Your task to perform on an android device: Open Google Maps and go to "Timeline" Image 0: 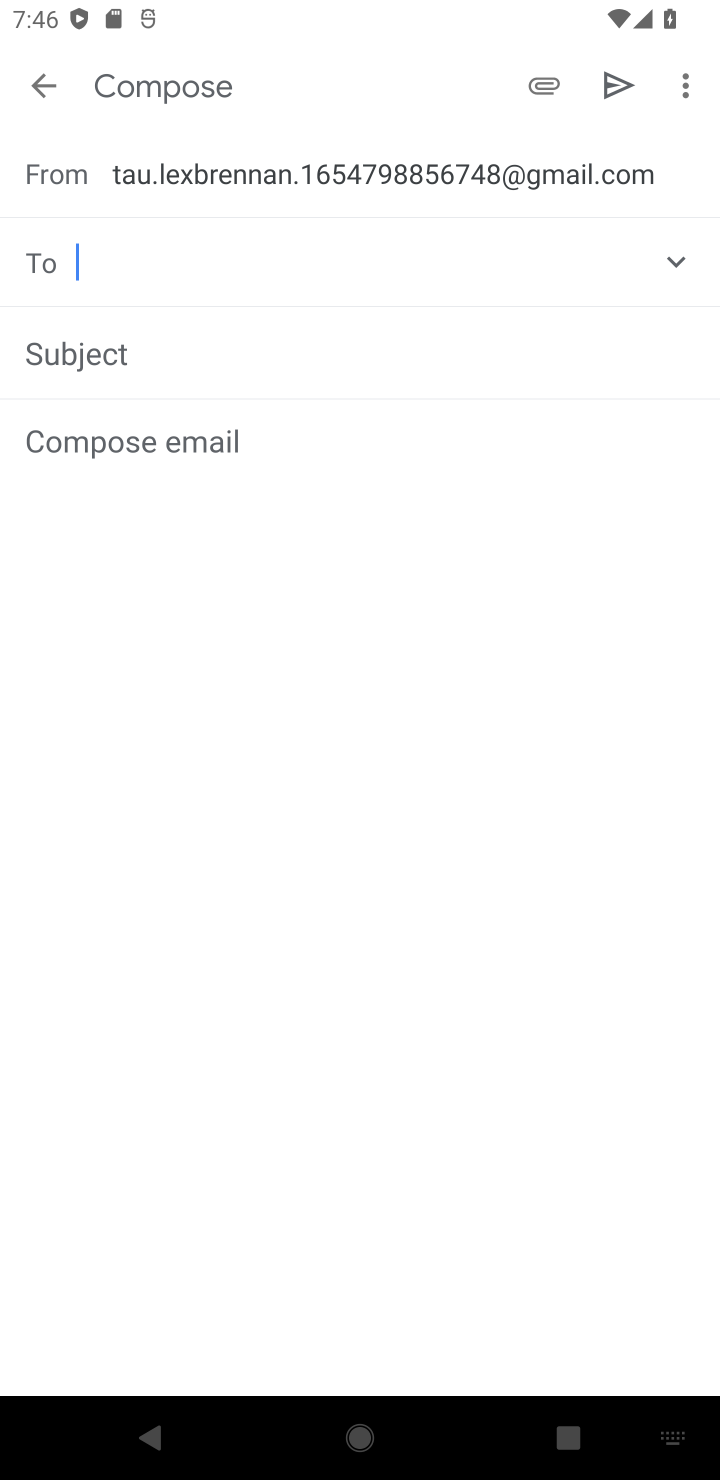
Step 0: press home button
Your task to perform on an android device: Open Google Maps and go to "Timeline" Image 1: 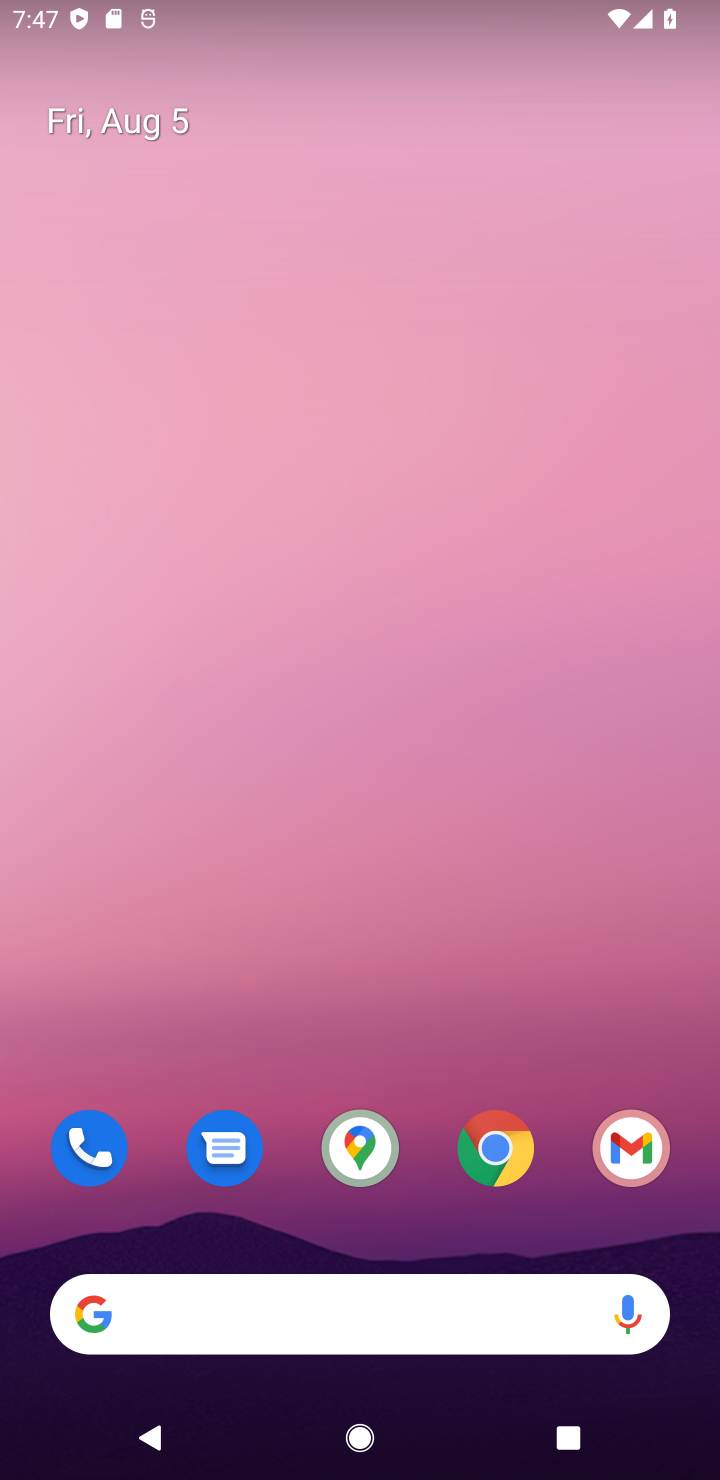
Step 1: click (366, 1187)
Your task to perform on an android device: Open Google Maps and go to "Timeline" Image 2: 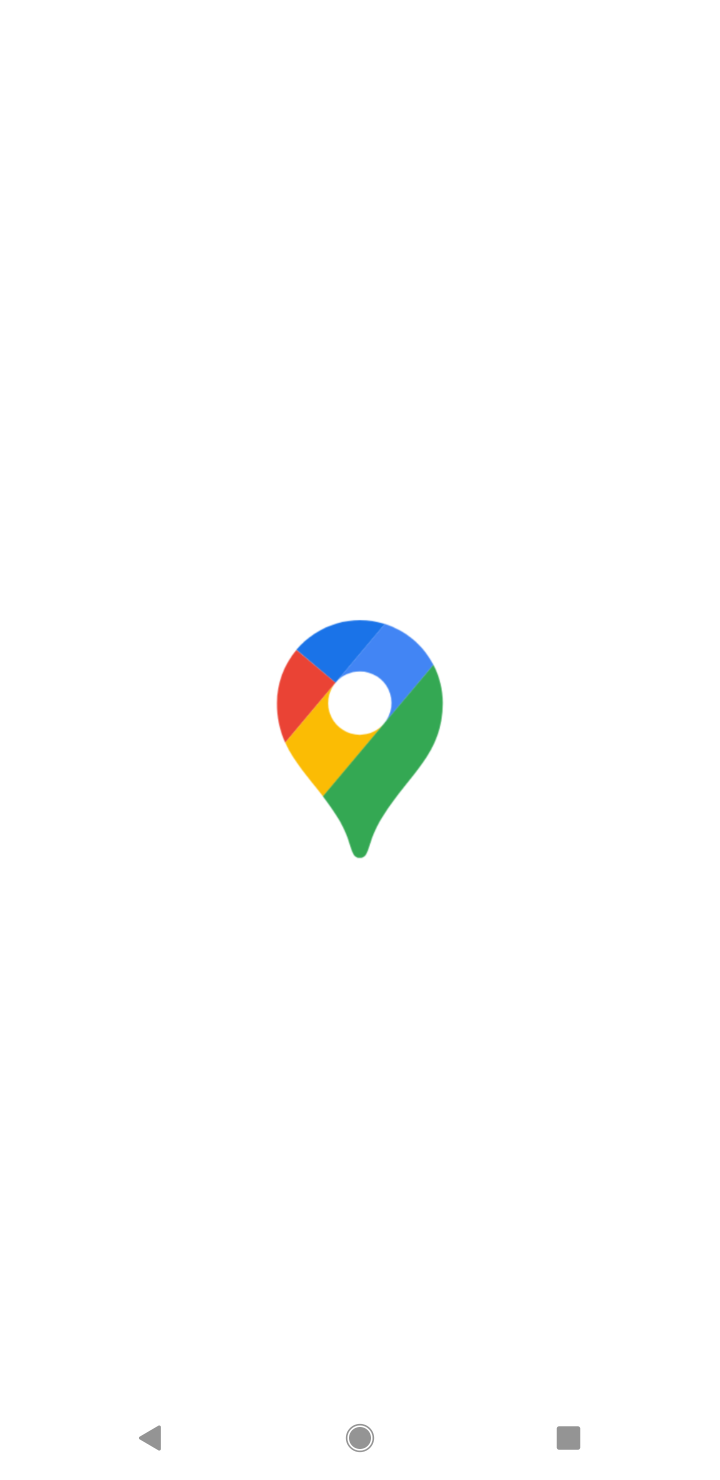
Step 2: task complete